Your task to perform on an android device: Open calendar and show me the third week of next month Image 0: 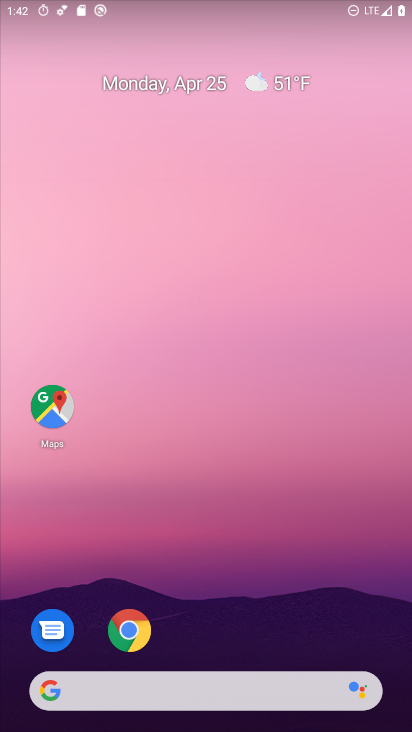
Step 0: drag from (174, 668) to (225, 90)
Your task to perform on an android device: Open calendar and show me the third week of next month Image 1: 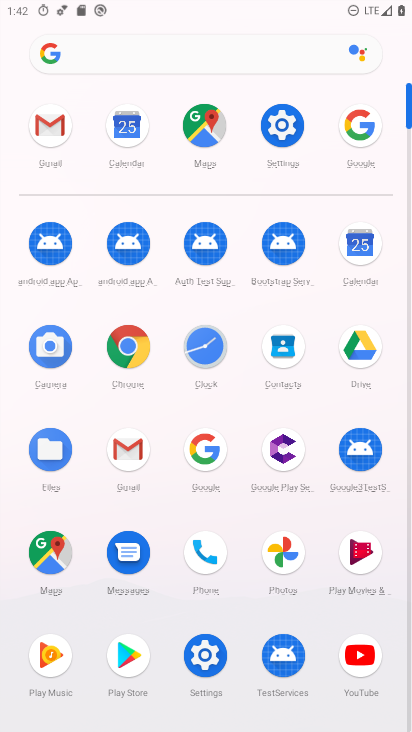
Step 1: drag from (176, 605) to (148, 328)
Your task to perform on an android device: Open calendar and show me the third week of next month Image 2: 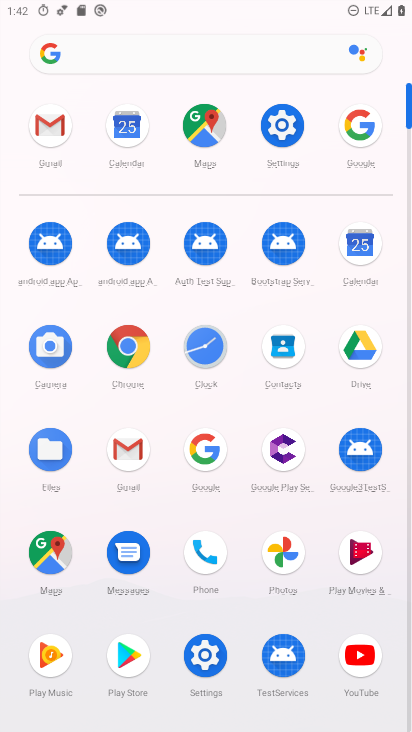
Step 2: click (355, 231)
Your task to perform on an android device: Open calendar and show me the third week of next month Image 3: 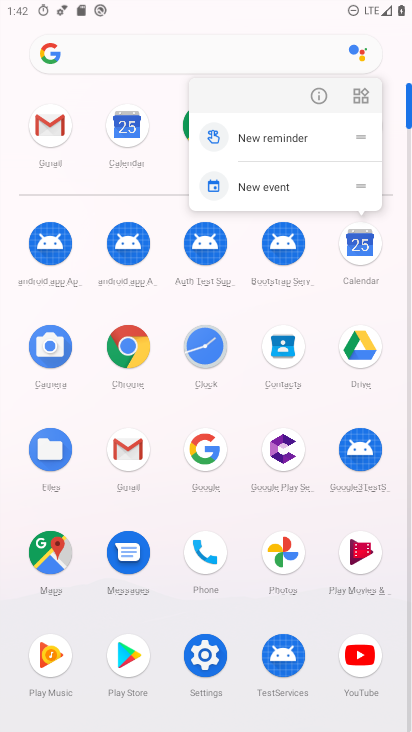
Step 3: click (327, 93)
Your task to perform on an android device: Open calendar and show me the third week of next month Image 4: 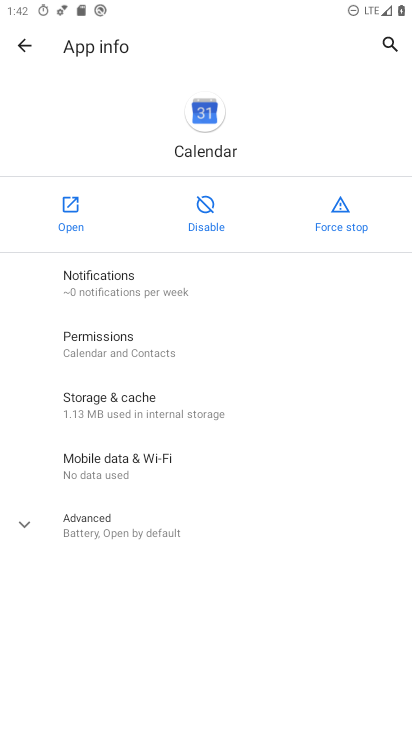
Step 4: click (76, 208)
Your task to perform on an android device: Open calendar and show me the third week of next month Image 5: 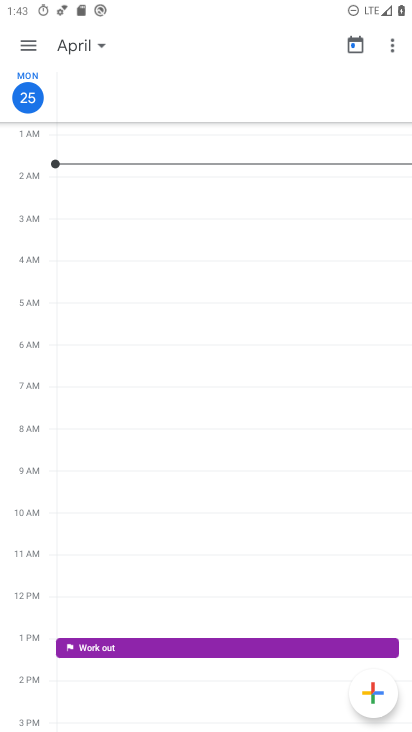
Step 5: click (71, 52)
Your task to perform on an android device: Open calendar and show me the third week of next month Image 6: 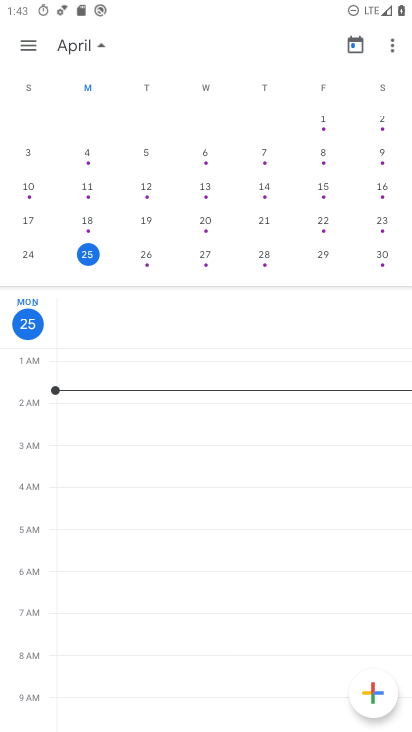
Step 6: click (24, 142)
Your task to perform on an android device: Open calendar and show me the third week of next month Image 7: 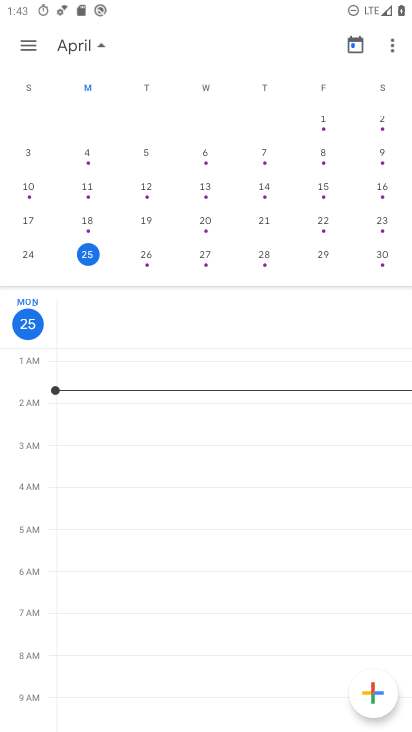
Step 7: drag from (343, 192) to (6, 156)
Your task to perform on an android device: Open calendar and show me the third week of next month Image 8: 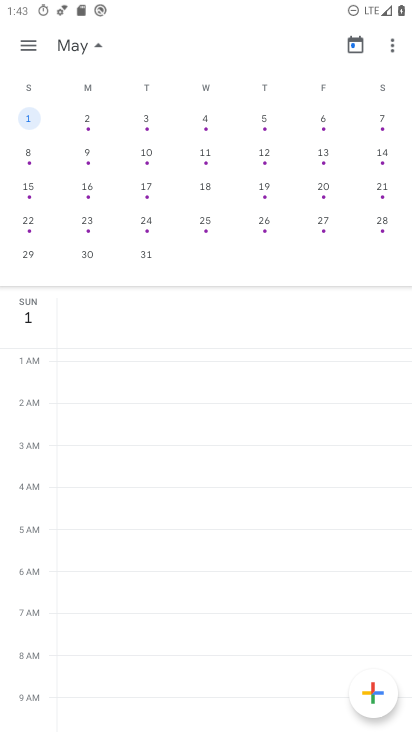
Step 8: click (203, 187)
Your task to perform on an android device: Open calendar and show me the third week of next month Image 9: 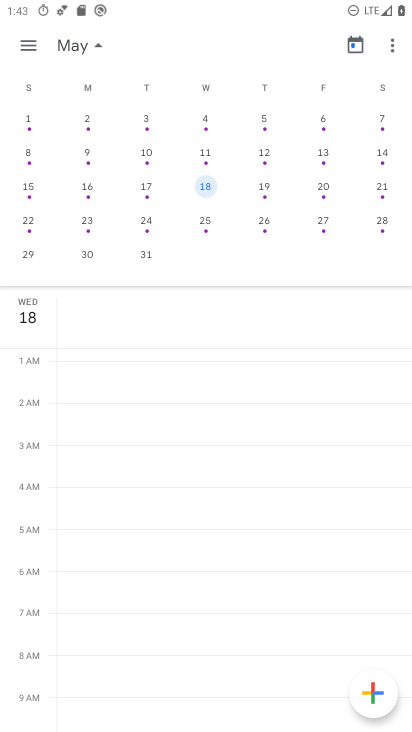
Step 9: click (277, 178)
Your task to perform on an android device: Open calendar and show me the third week of next month Image 10: 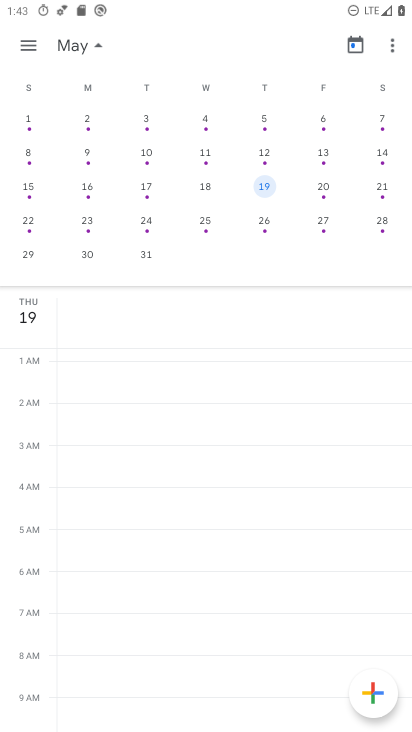
Step 10: task complete